Your task to perform on an android device: set the timer Image 0: 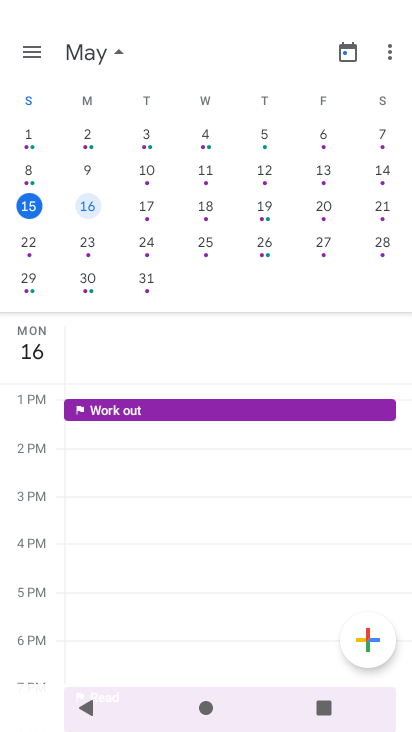
Step 0: press home button
Your task to perform on an android device: set the timer Image 1: 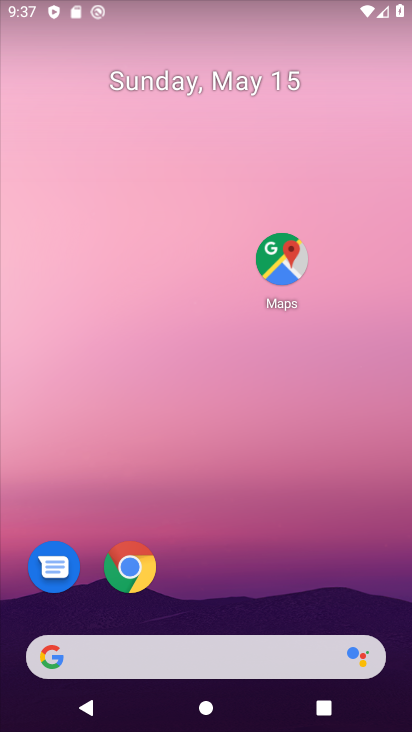
Step 1: drag from (231, 600) to (226, 78)
Your task to perform on an android device: set the timer Image 2: 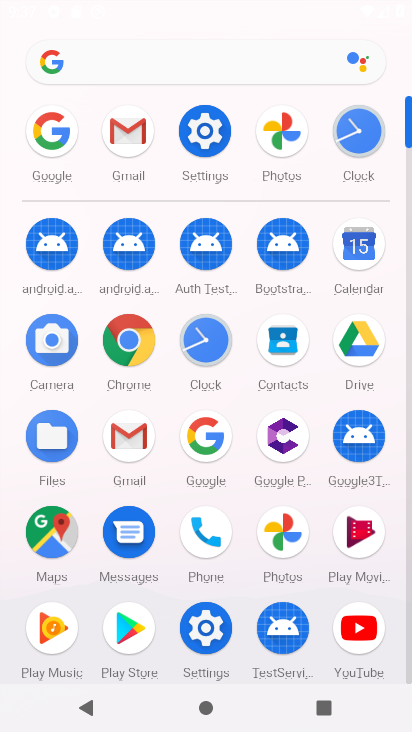
Step 2: click (208, 340)
Your task to perform on an android device: set the timer Image 3: 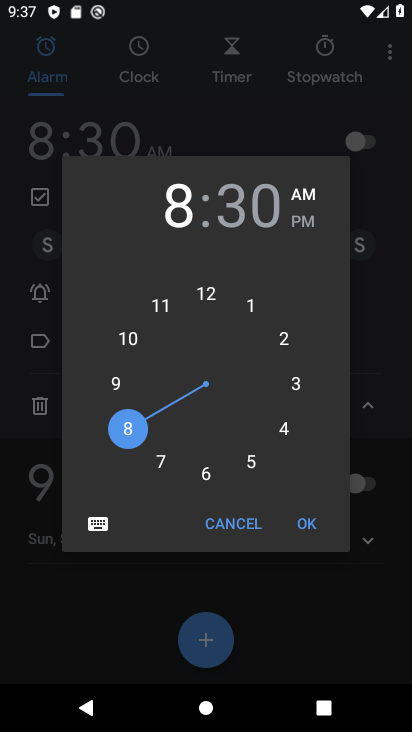
Step 3: press back button
Your task to perform on an android device: set the timer Image 4: 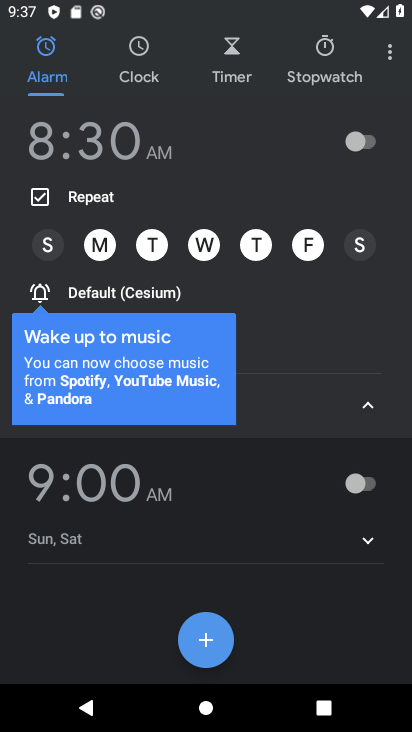
Step 4: click (249, 54)
Your task to perform on an android device: set the timer Image 5: 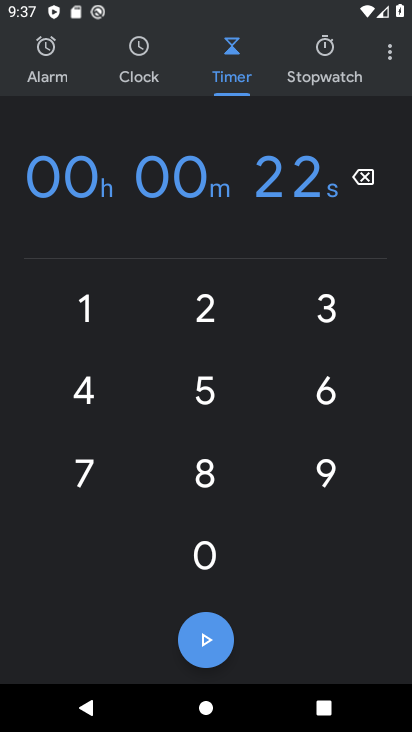
Step 5: click (209, 307)
Your task to perform on an android device: set the timer Image 6: 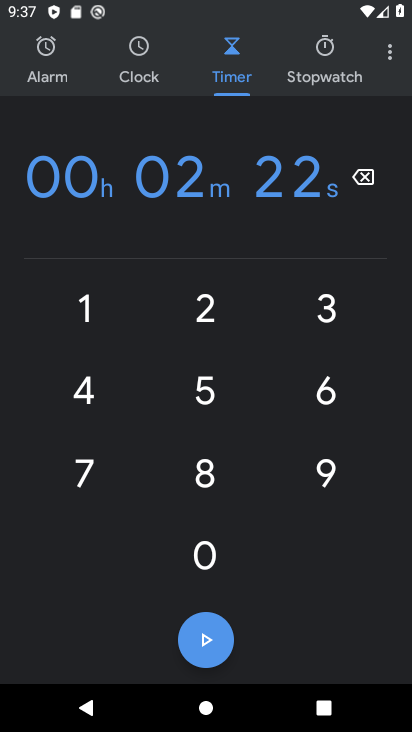
Step 6: task complete